Your task to perform on an android device: Show me the alarms in the clock app Image 0: 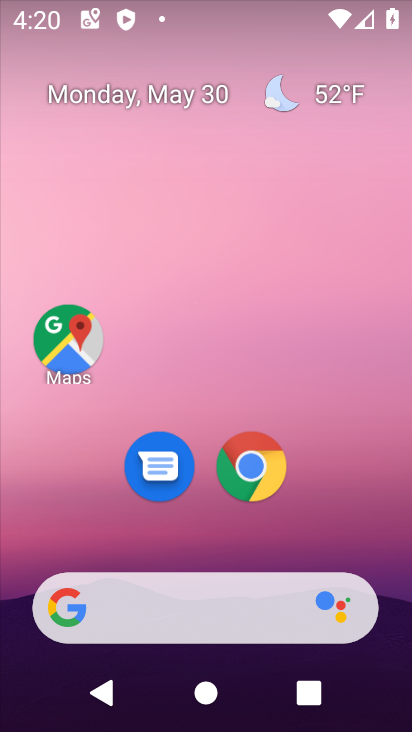
Step 0: drag from (357, 522) to (295, 19)
Your task to perform on an android device: Show me the alarms in the clock app Image 1: 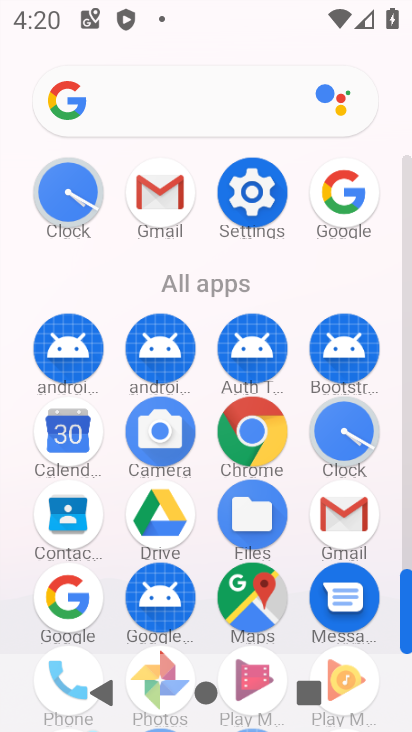
Step 1: click (338, 418)
Your task to perform on an android device: Show me the alarms in the clock app Image 2: 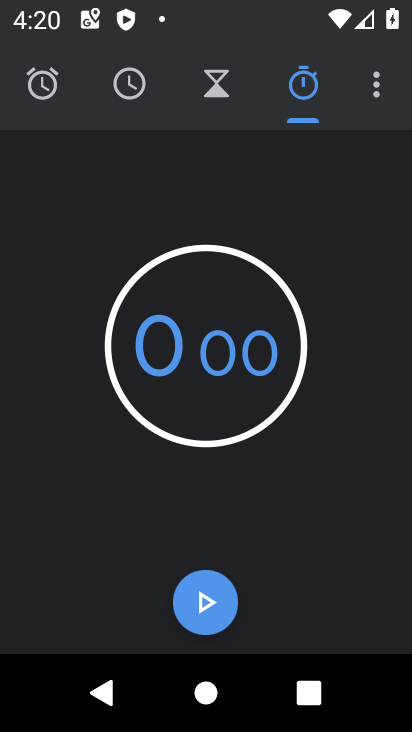
Step 2: click (40, 81)
Your task to perform on an android device: Show me the alarms in the clock app Image 3: 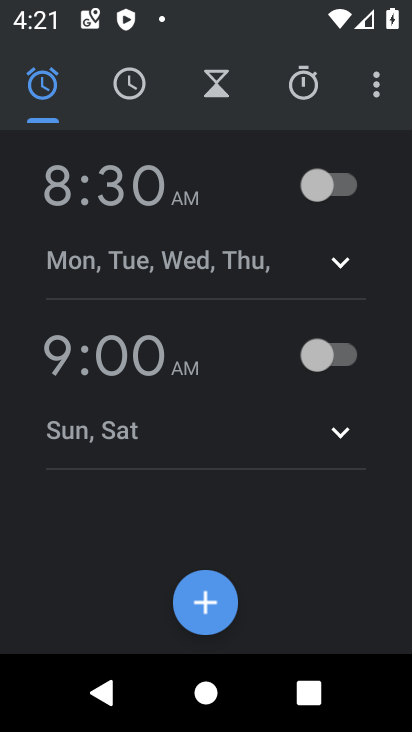
Step 3: task complete